Your task to perform on an android device: Open accessibility settings Image 0: 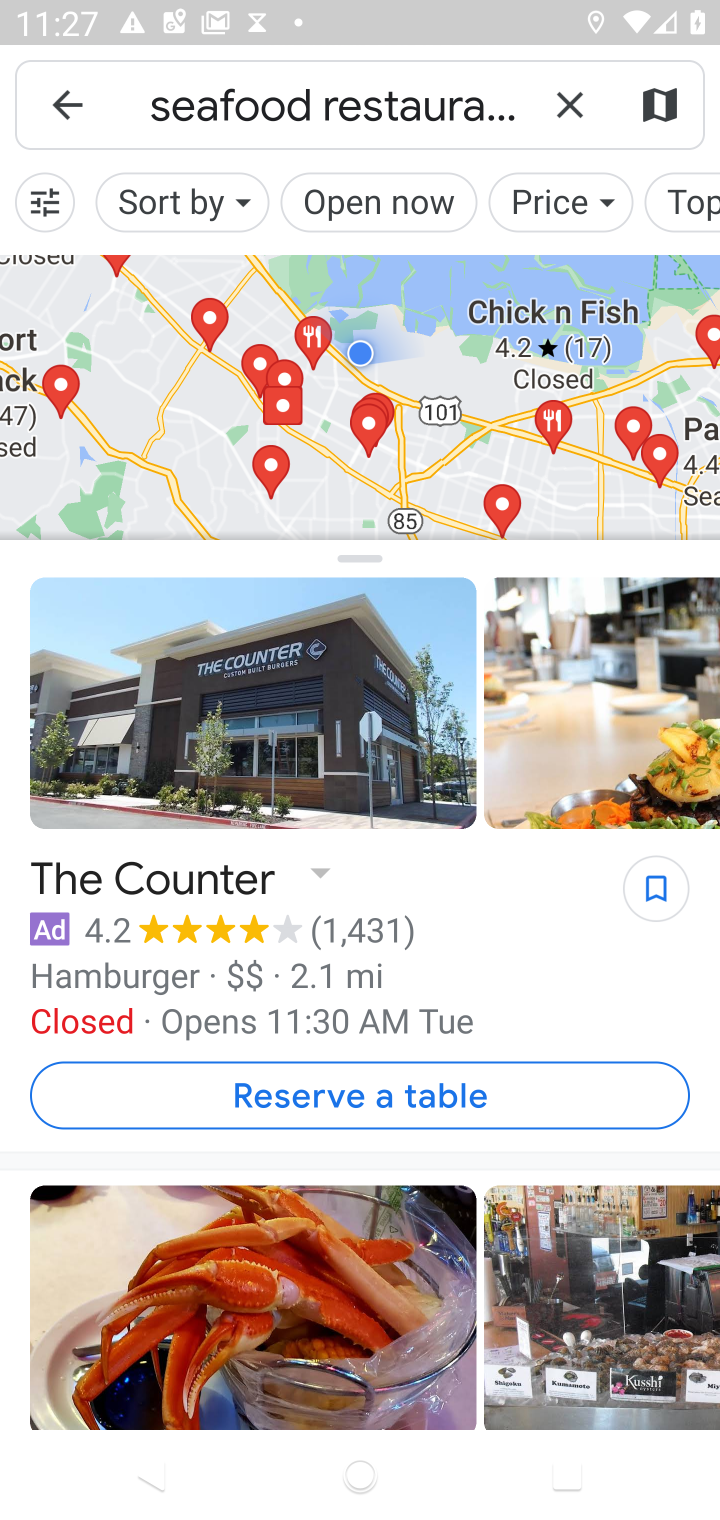
Step 0: press home button
Your task to perform on an android device: Open accessibility settings Image 1: 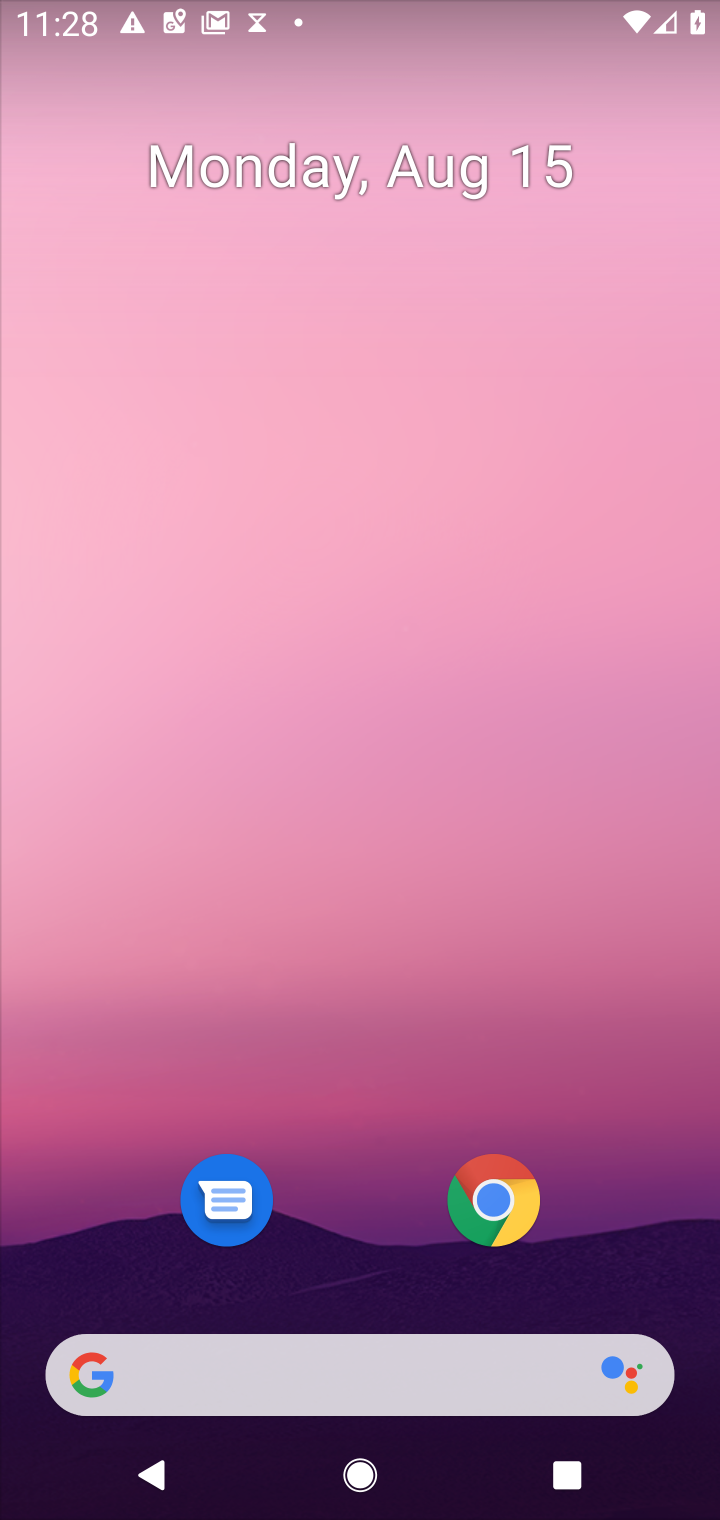
Step 1: drag from (338, 1176) to (299, 533)
Your task to perform on an android device: Open accessibility settings Image 2: 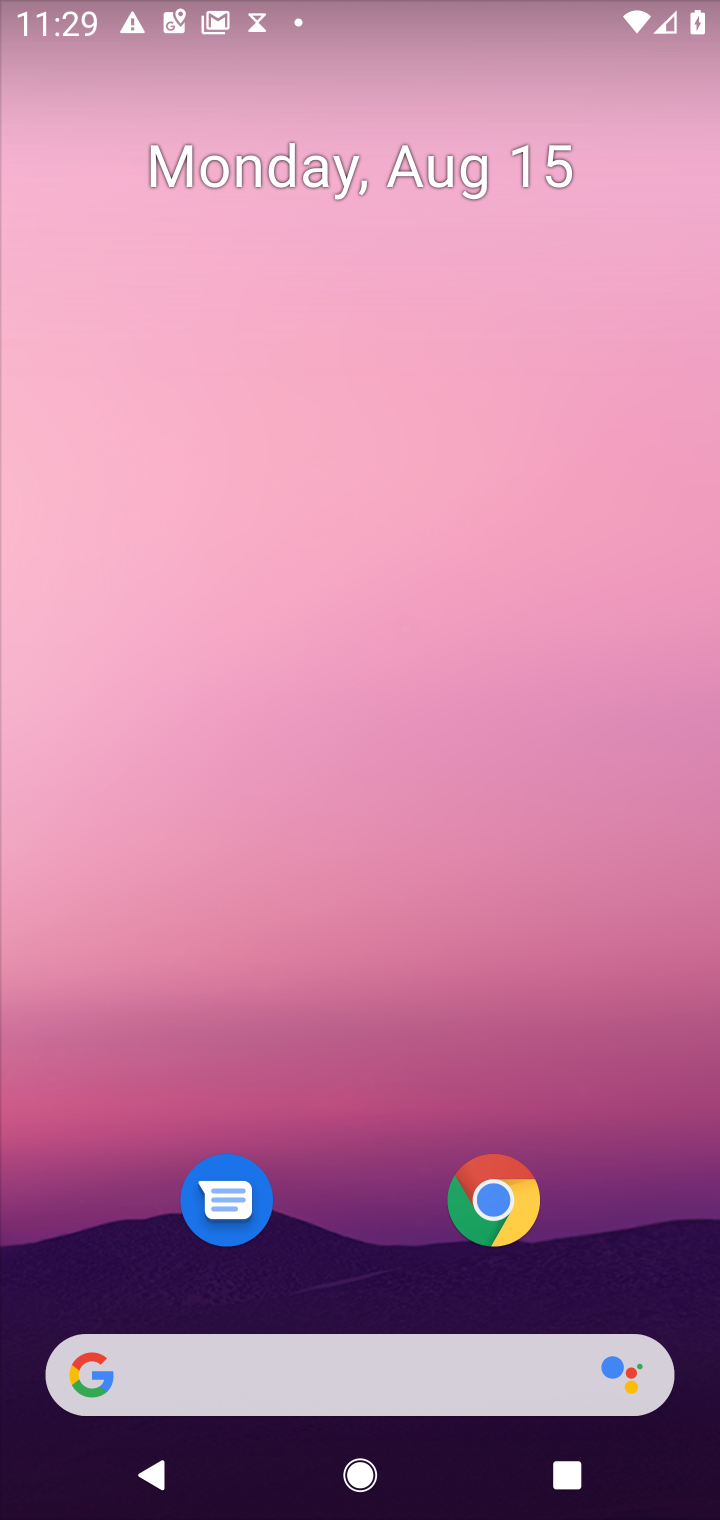
Step 2: drag from (314, 937) to (308, 414)
Your task to perform on an android device: Open accessibility settings Image 3: 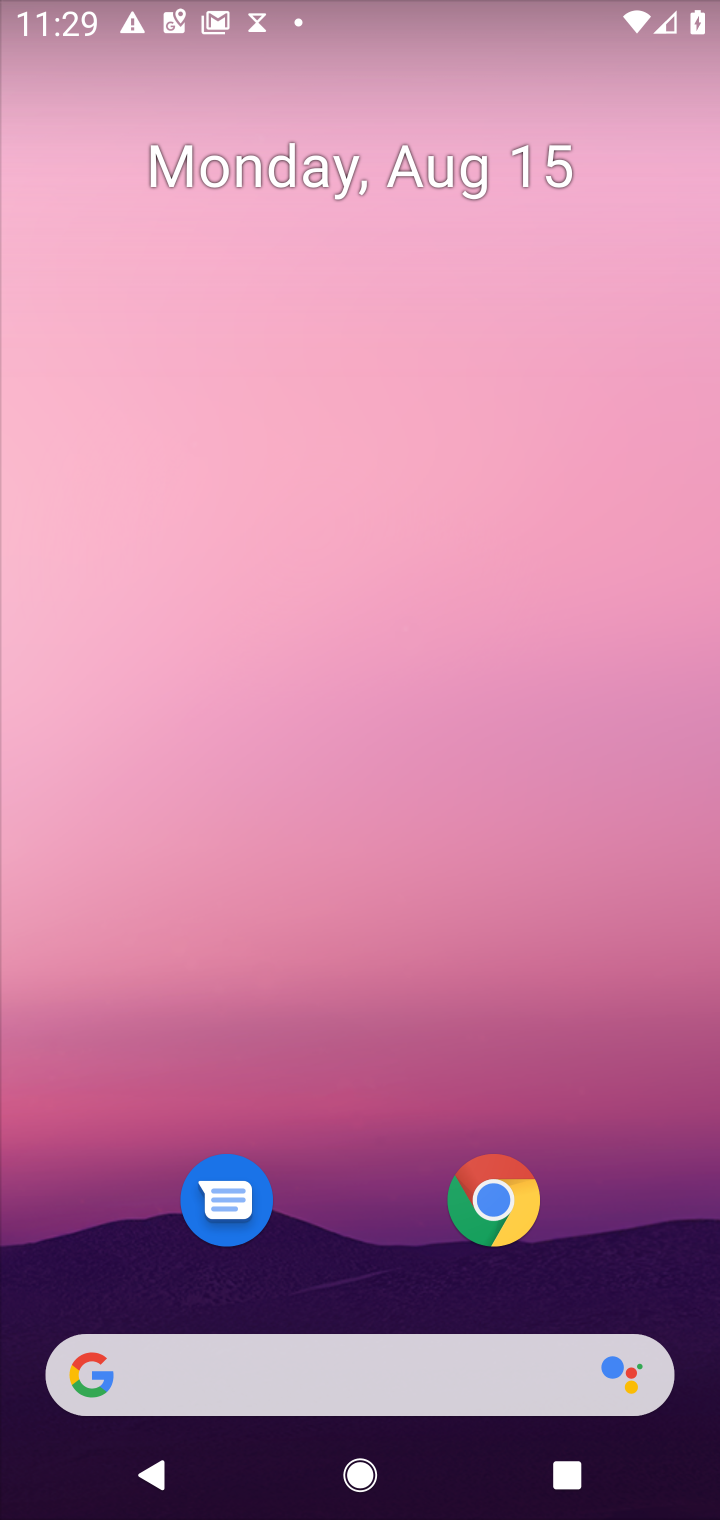
Step 3: drag from (315, 1245) to (311, 446)
Your task to perform on an android device: Open accessibility settings Image 4: 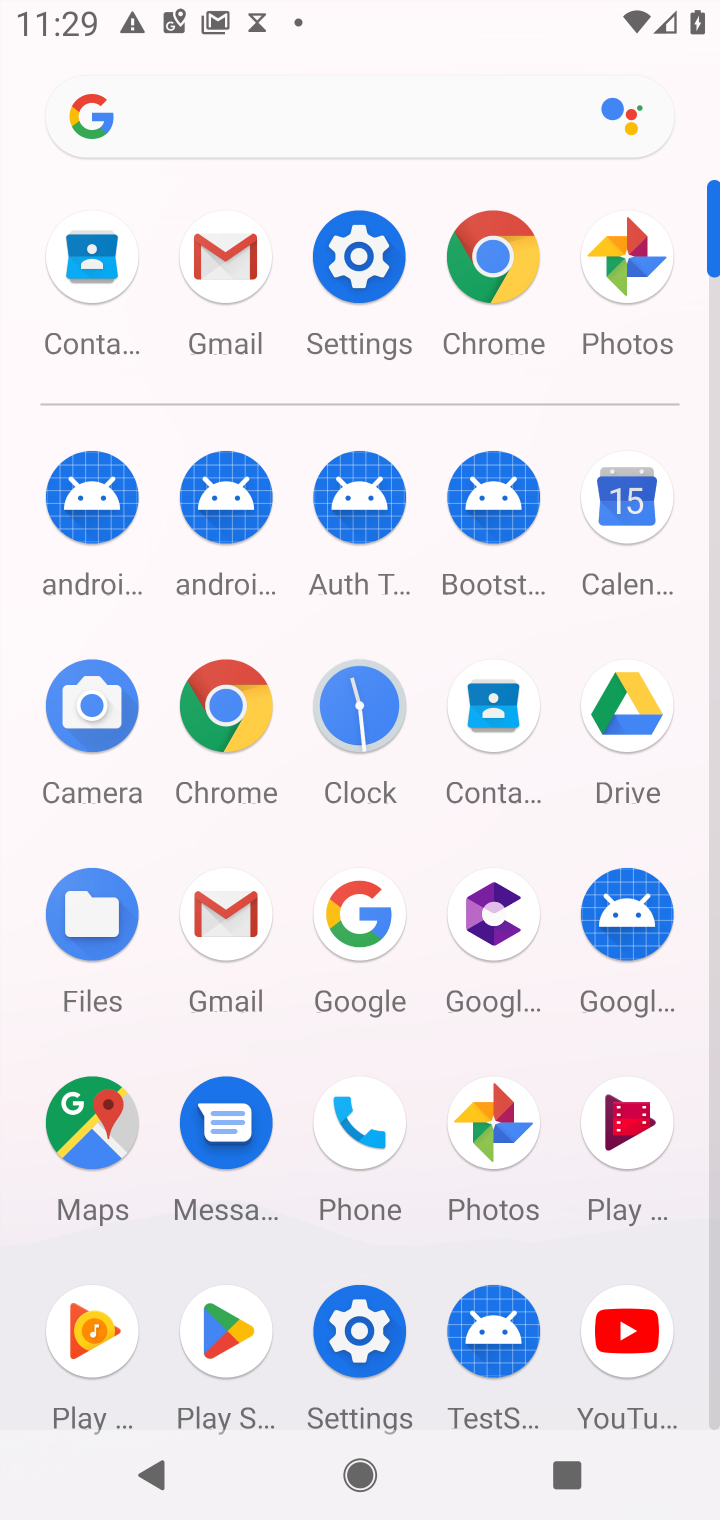
Step 4: click (366, 270)
Your task to perform on an android device: Open accessibility settings Image 5: 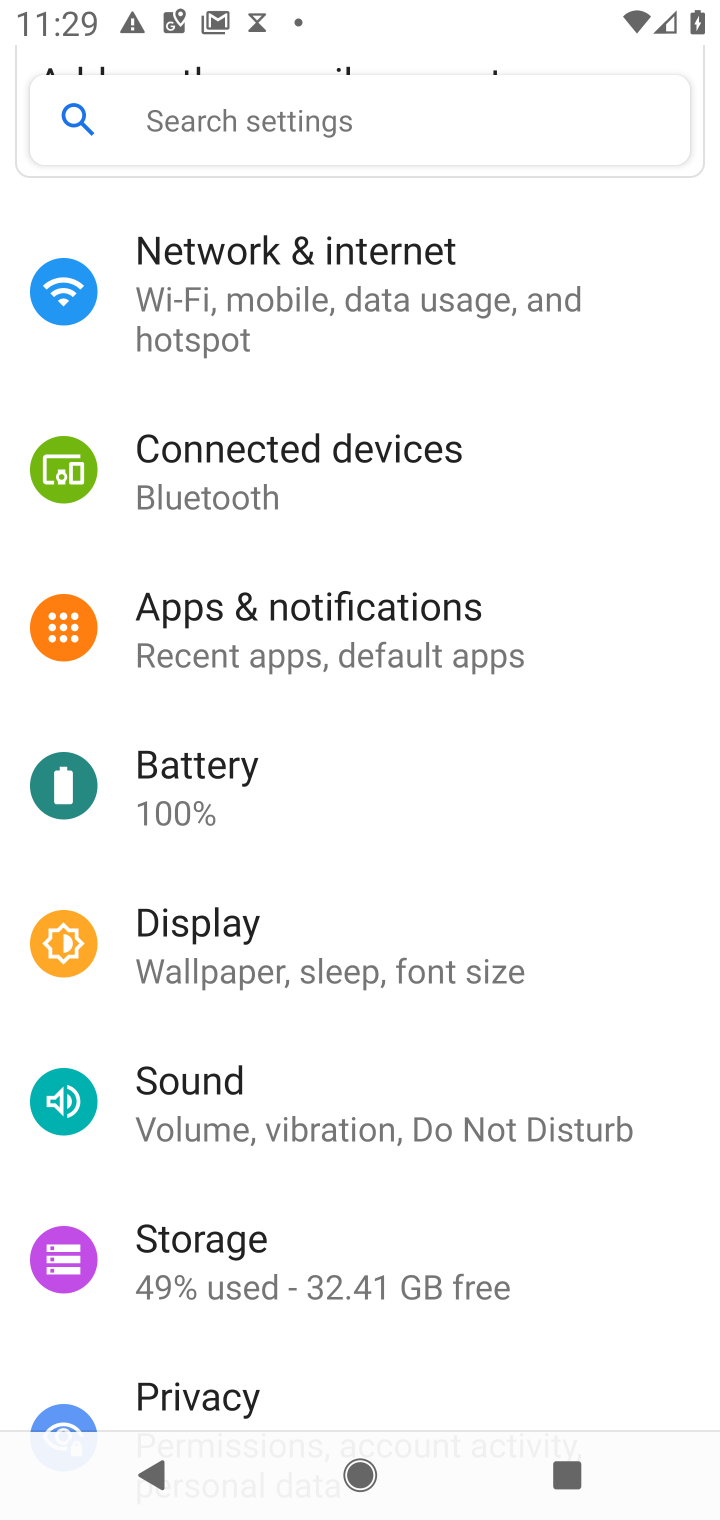
Step 5: drag from (380, 1169) to (377, 471)
Your task to perform on an android device: Open accessibility settings Image 6: 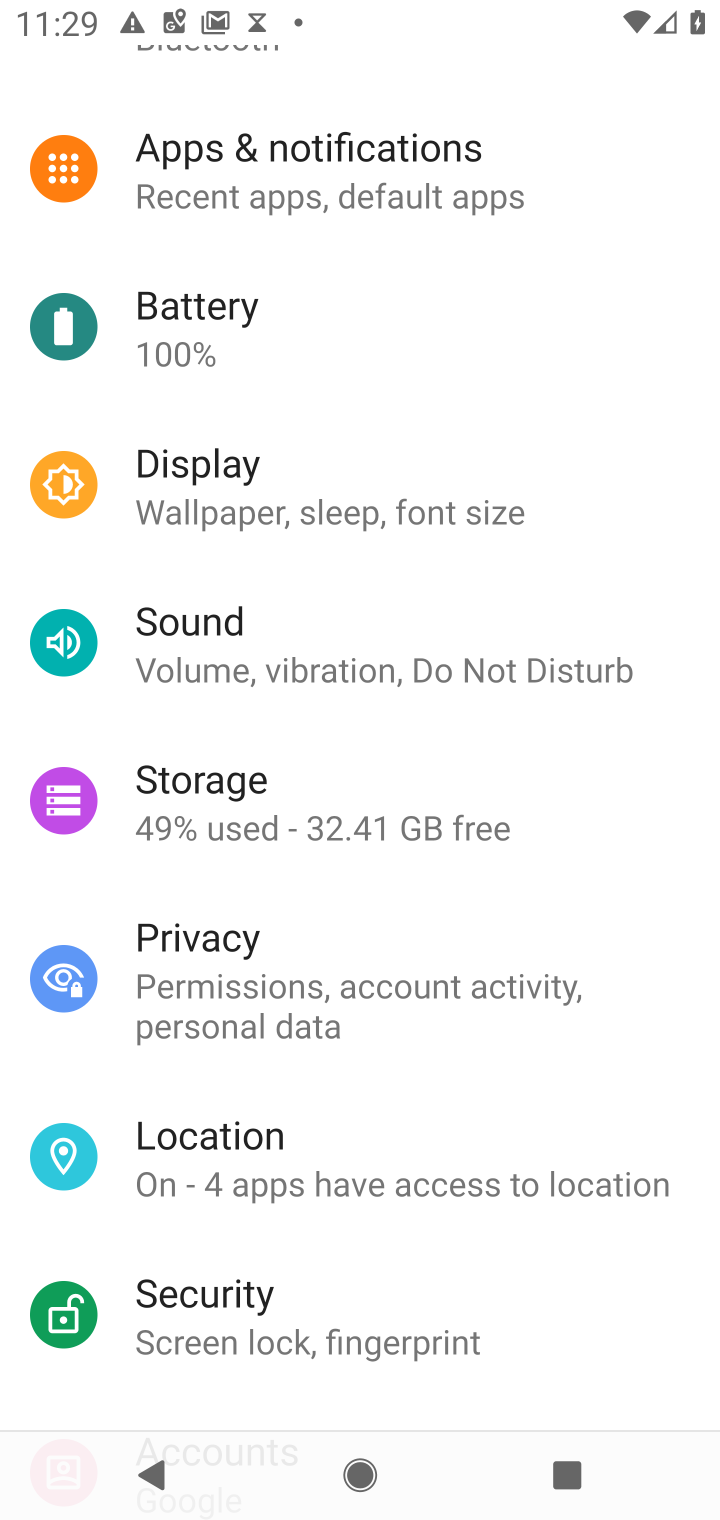
Step 6: drag from (423, 1131) to (399, 480)
Your task to perform on an android device: Open accessibility settings Image 7: 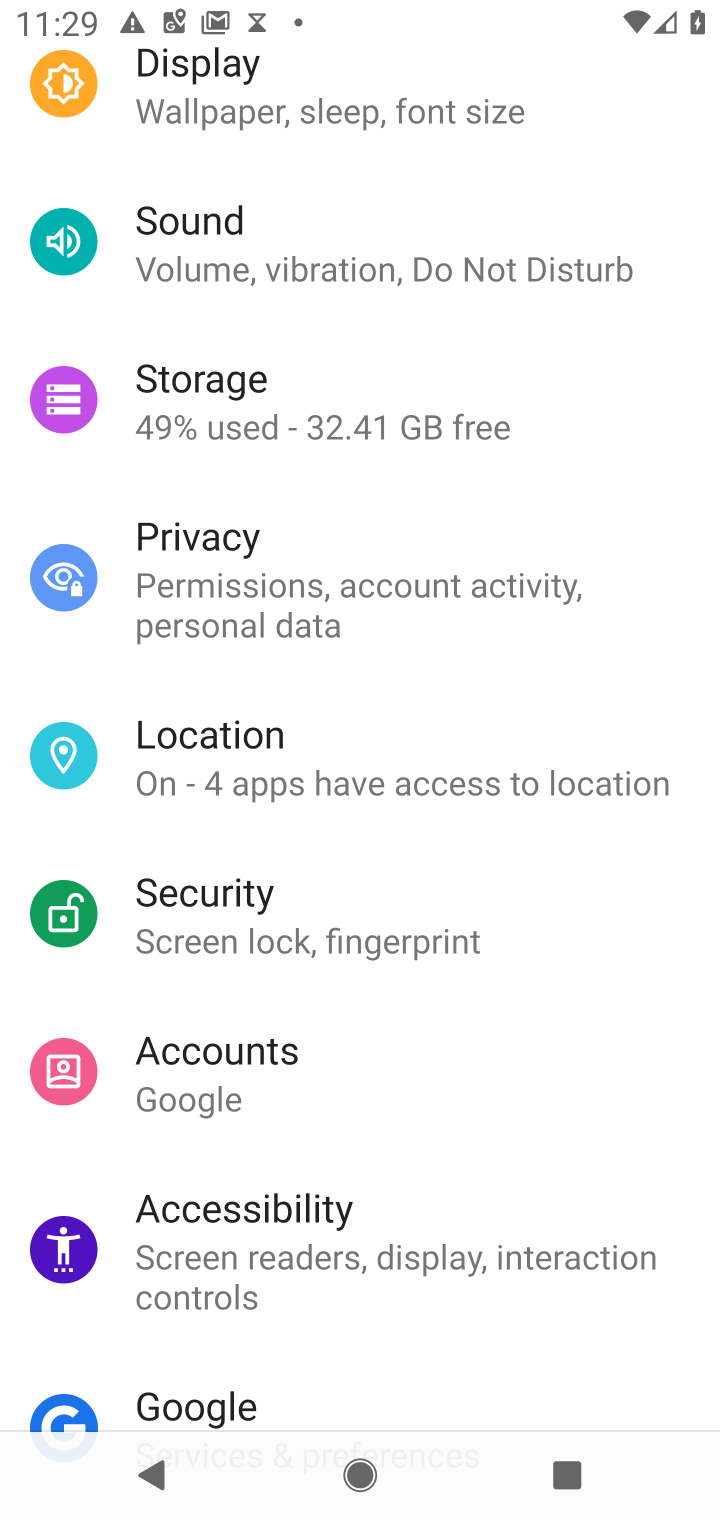
Step 7: click (344, 1199)
Your task to perform on an android device: Open accessibility settings Image 8: 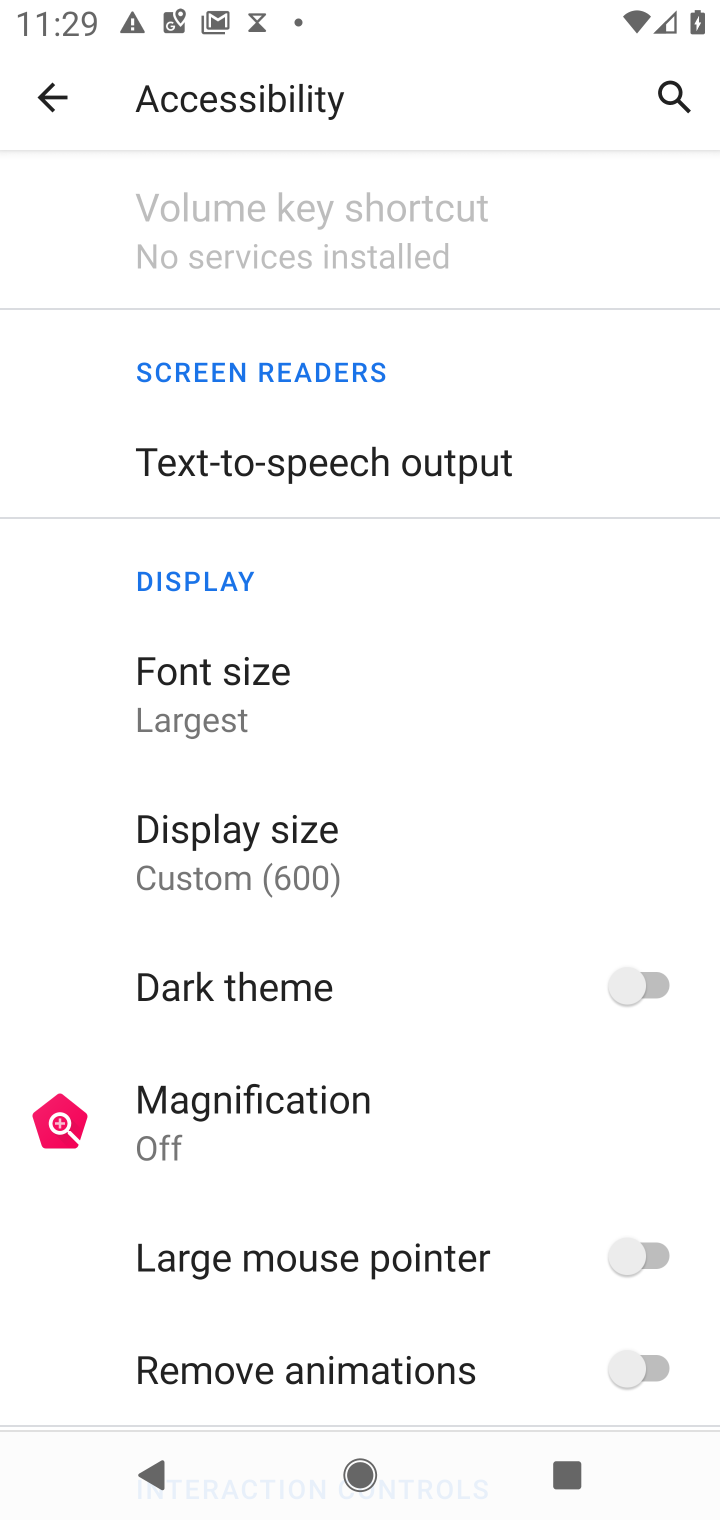
Step 8: task complete